Your task to perform on an android device: Go to wifi settings Image 0: 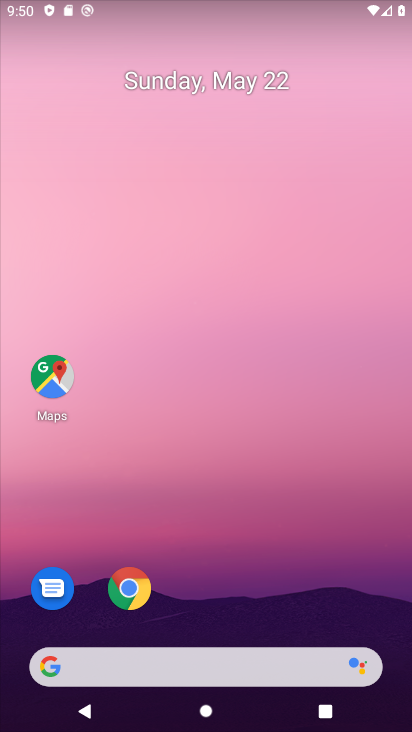
Step 0: drag from (233, 620) to (172, 236)
Your task to perform on an android device: Go to wifi settings Image 1: 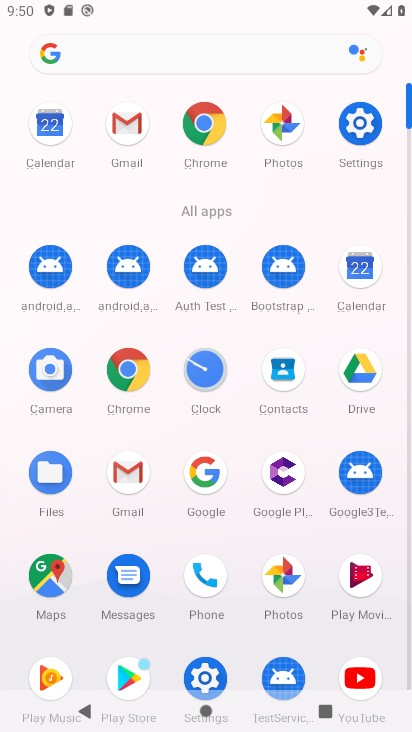
Step 1: click (370, 117)
Your task to perform on an android device: Go to wifi settings Image 2: 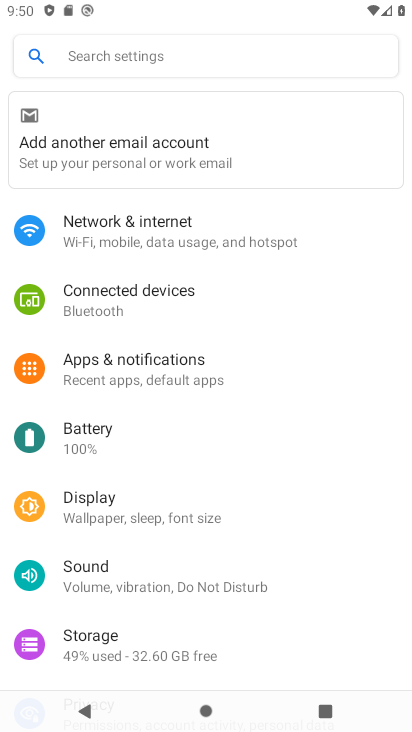
Step 2: click (271, 222)
Your task to perform on an android device: Go to wifi settings Image 3: 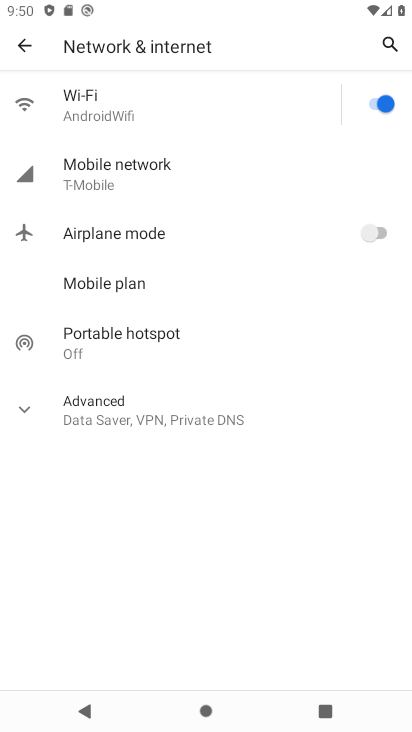
Step 3: click (166, 86)
Your task to perform on an android device: Go to wifi settings Image 4: 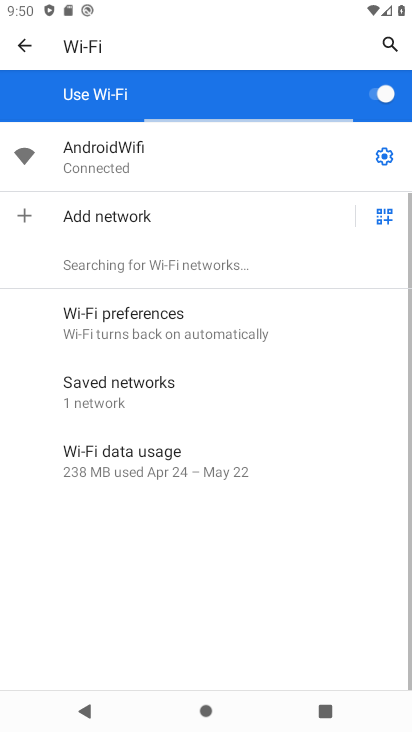
Step 4: task complete